Your task to perform on an android device: Play the new Taylor Swift video on YouTube Image 0: 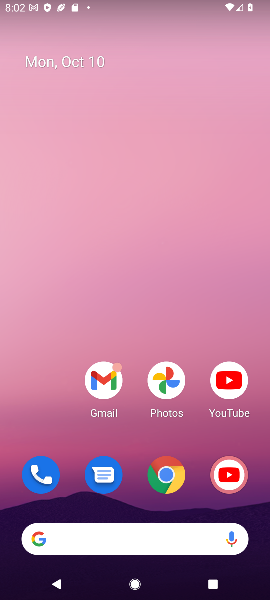
Step 0: click (220, 474)
Your task to perform on an android device: Play the new Taylor Swift video on YouTube Image 1: 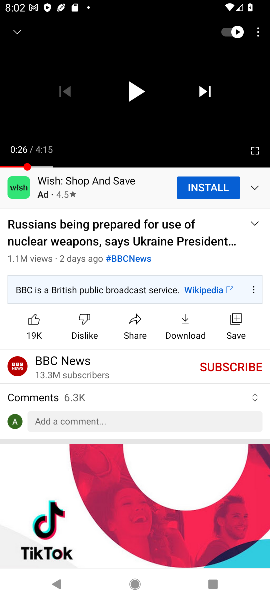
Step 1: click (13, 32)
Your task to perform on an android device: Play the new Taylor Swift video on YouTube Image 2: 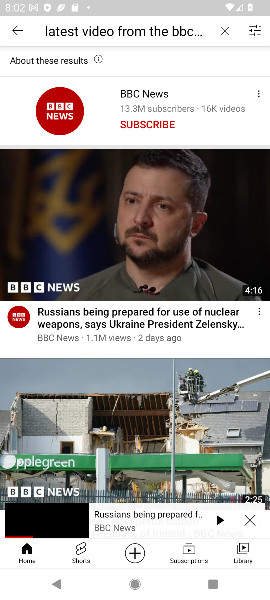
Step 2: click (248, 520)
Your task to perform on an android device: Play the new Taylor Swift video on YouTube Image 3: 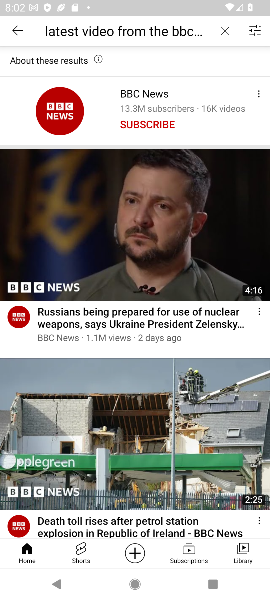
Step 3: click (109, 32)
Your task to perform on an android device: Play the new Taylor Swift video on YouTube Image 4: 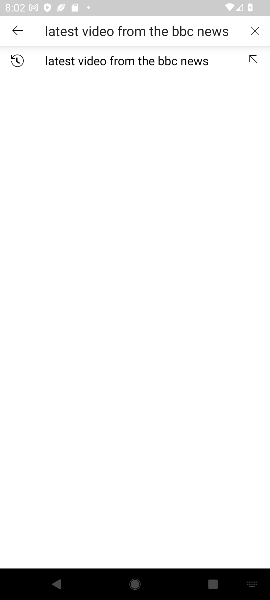
Step 4: click (249, 25)
Your task to perform on an android device: Play the new Taylor Swift video on YouTube Image 5: 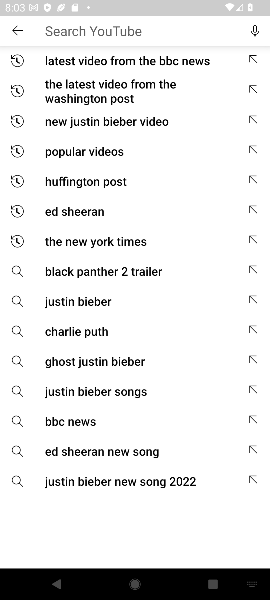
Step 5: type " the new Taylor Swift video "
Your task to perform on an android device: Play the new Taylor Swift video on YouTube Image 6: 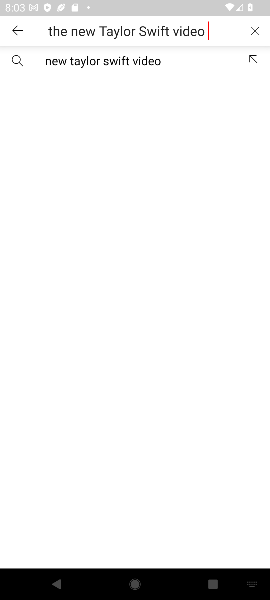
Step 6: click (109, 66)
Your task to perform on an android device: Play the new Taylor Swift video on YouTube Image 7: 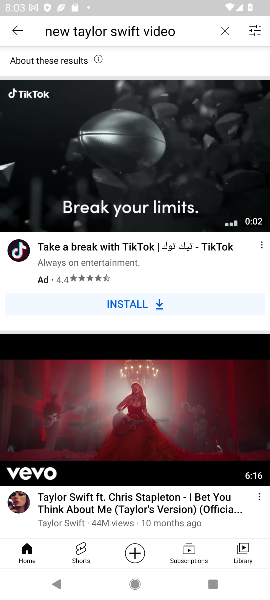
Step 7: click (189, 192)
Your task to perform on an android device: Play the new Taylor Swift video on YouTube Image 8: 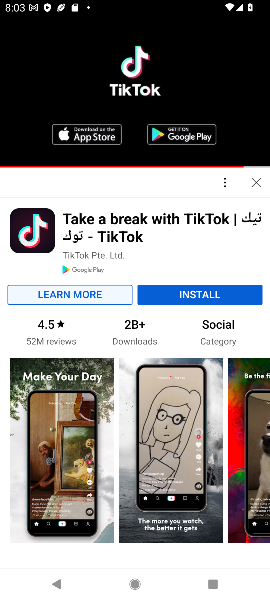
Step 8: click (122, 114)
Your task to perform on an android device: Play the new Taylor Swift video on YouTube Image 9: 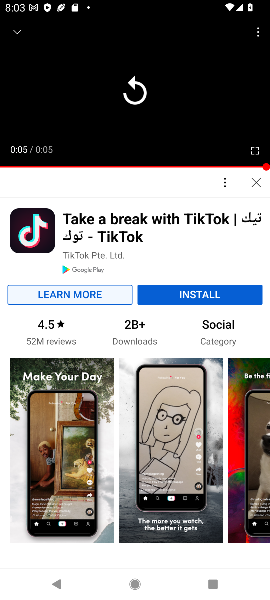
Step 9: click (17, 34)
Your task to perform on an android device: Play the new Taylor Swift video on YouTube Image 10: 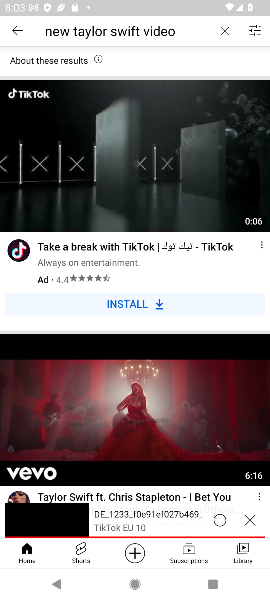
Step 10: click (140, 387)
Your task to perform on an android device: Play the new Taylor Swift video on YouTube Image 11: 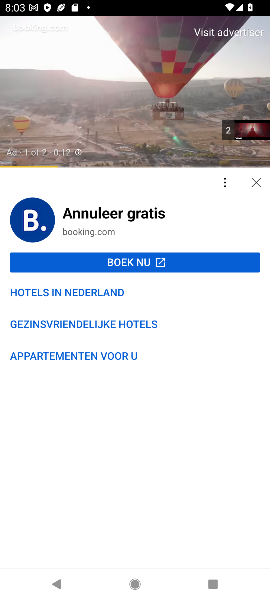
Step 11: click (253, 179)
Your task to perform on an android device: Play the new Taylor Swift video on YouTube Image 12: 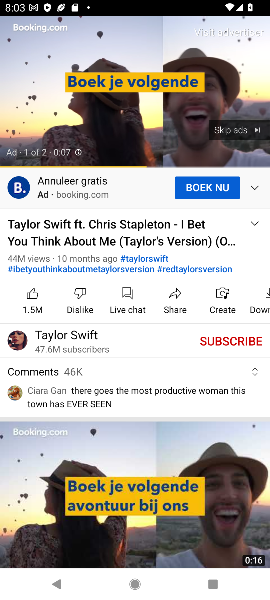
Step 12: click (233, 131)
Your task to perform on an android device: Play the new Taylor Swift video on YouTube Image 13: 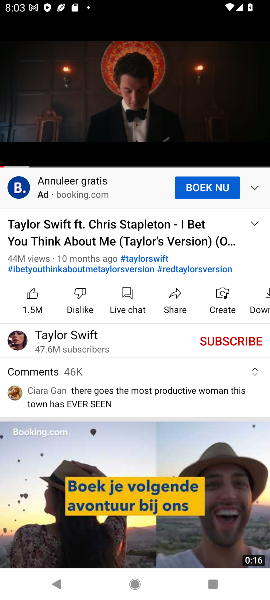
Step 13: task complete